Your task to perform on an android device: Find coffee shops on Maps Image 0: 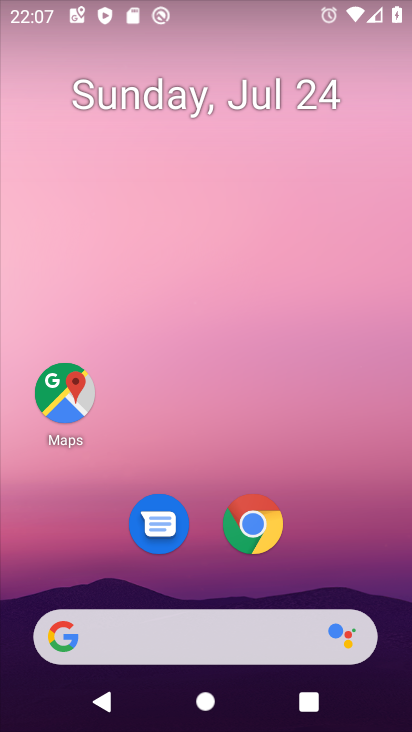
Step 0: click (52, 392)
Your task to perform on an android device: Find coffee shops on Maps Image 1: 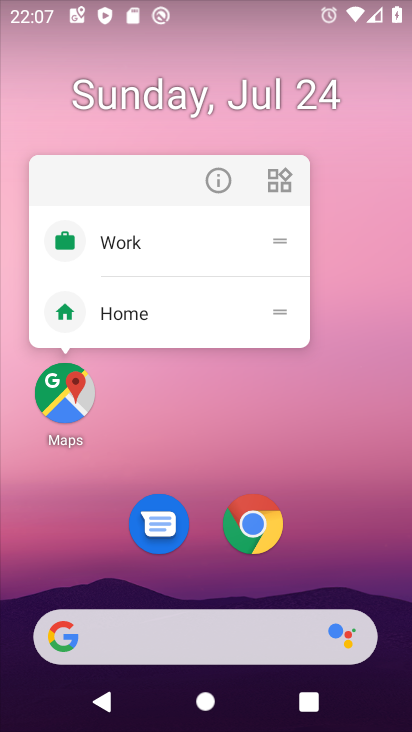
Step 1: click (65, 401)
Your task to perform on an android device: Find coffee shops on Maps Image 2: 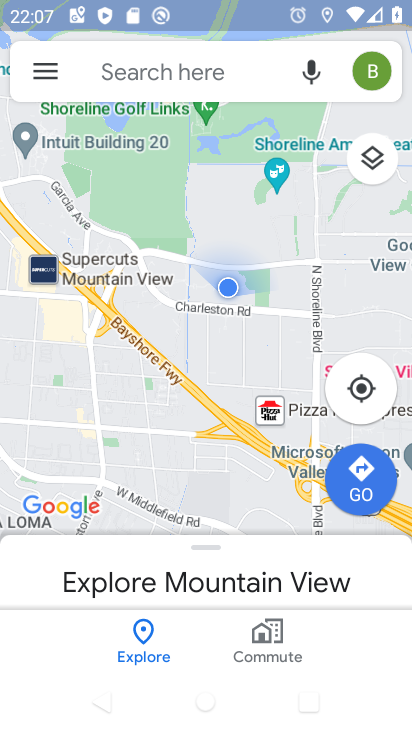
Step 2: click (183, 73)
Your task to perform on an android device: Find coffee shops on Maps Image 3: 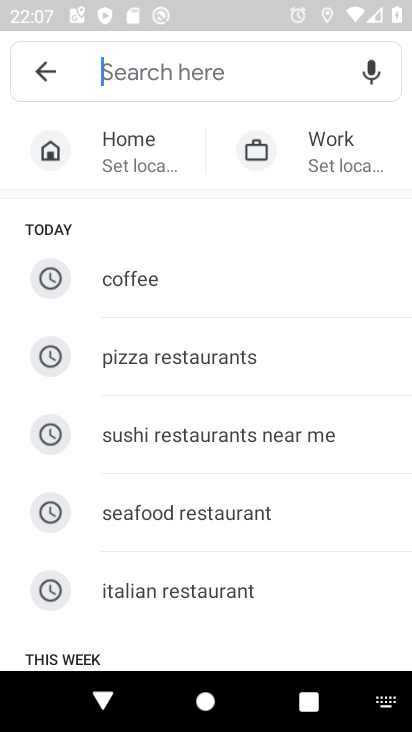
Step 3: click (116, 276)
Your task to perform on an android device: Find coffee shops on Maps Image 4: 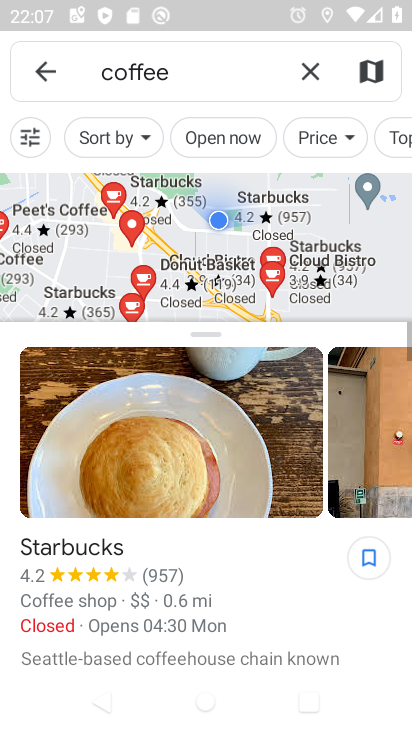
Step 4: task complete